Your task to perform on an android device: turn on airplane mode Image 0: 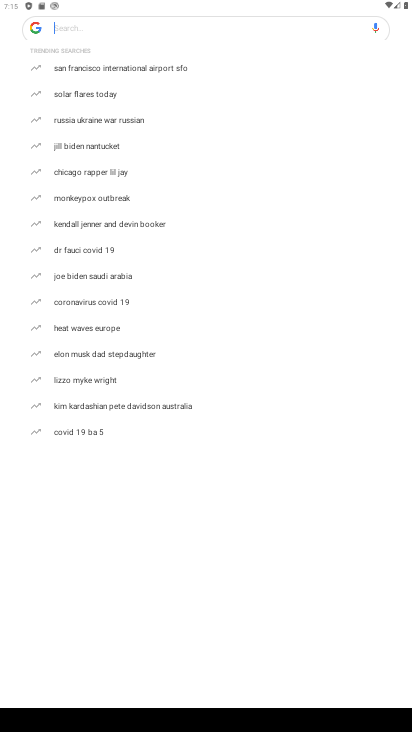
Step 0: press home button
Your task to perform on an android device: turn on airplane mode Image 1: 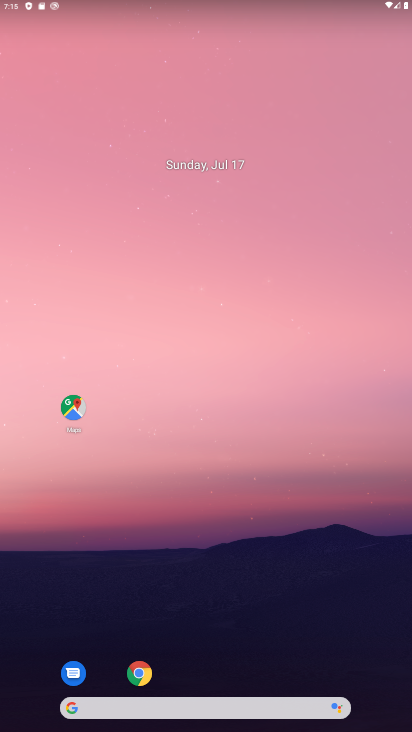
Step 1: drag from (282, 627) to (235, 166)
Your task to perform on an android device: turn on airplane mode Image 2: 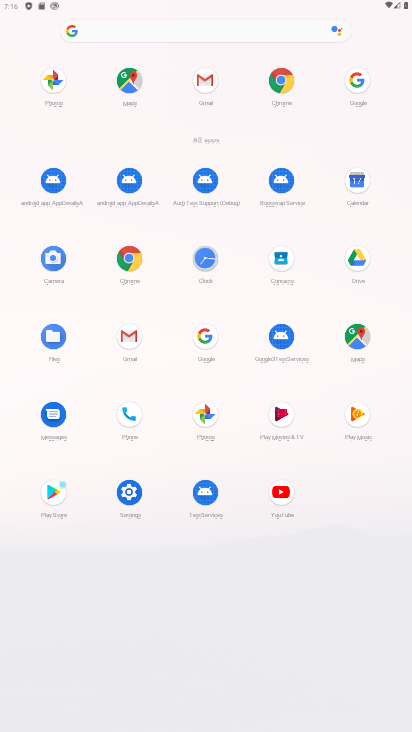
Step 2: click (135, 502)
Your task to perform on an android device: turn on airplane mode Image 3: 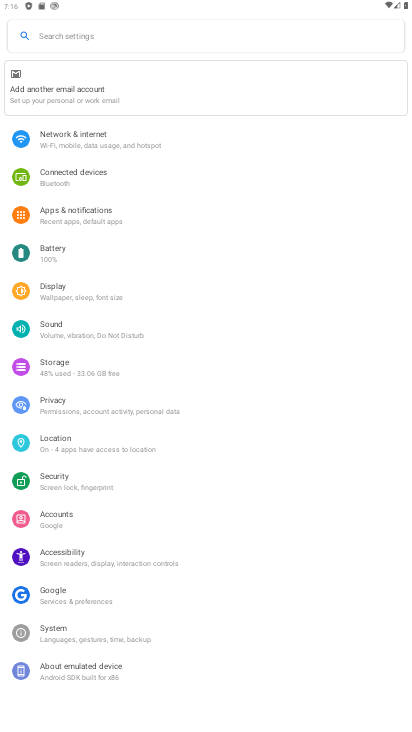
Step 3: click (65, 142)
Your task to perform on an android device: turn on airplane mode Image 4: 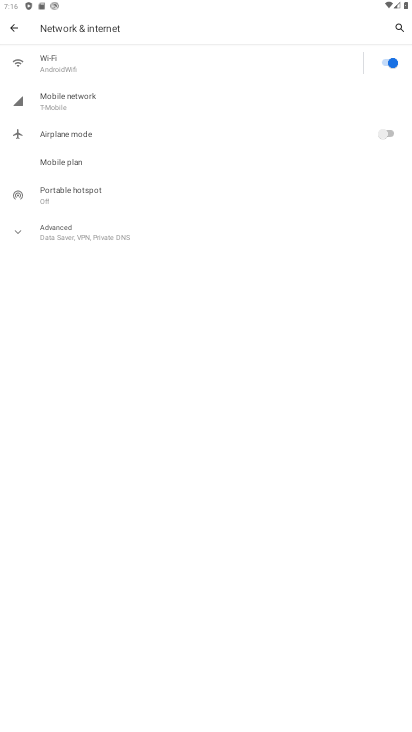
Step 4: click (389, 133)
Your task to perform on an android device: turn on airplane mode Image 5: 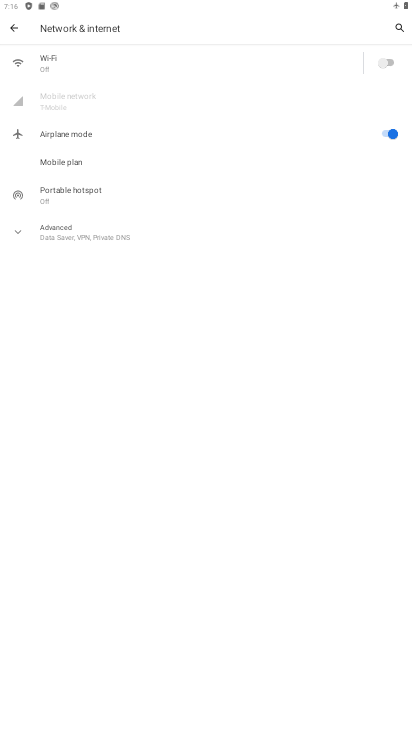
Step 5: task complete